Your task to perform on an android device: Go to calendar. Show me events next week Image 0: 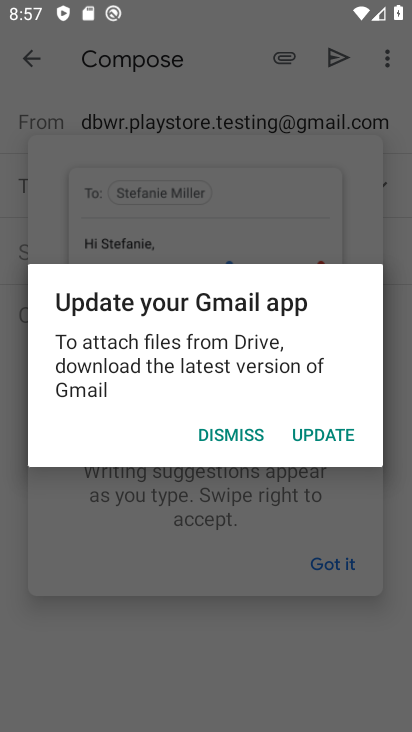
Step 0: press home button
Your task to perform on an android device: Go to calendar. Show me events next week Image 1: 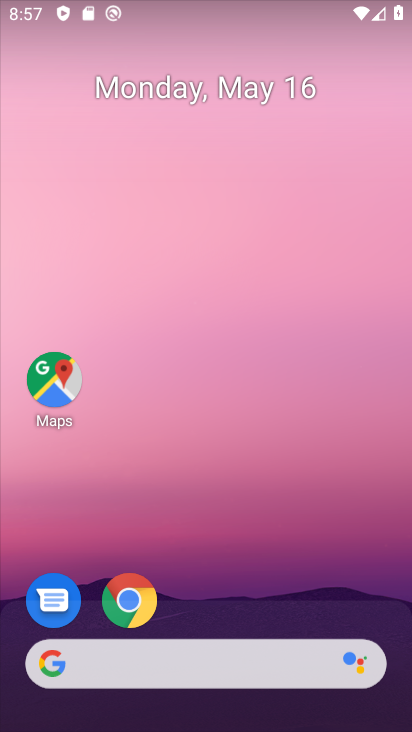
Step 1: drag from (198, 592) to (129, 138)
Your task to perform on an android device: Go to calendar. Show me events next week Image 2: 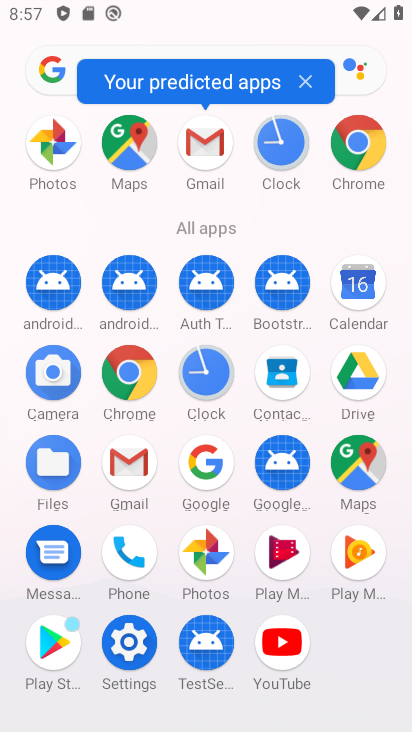
Step 2: click (362, 271)
Your task to perform on an android device: Go to calendar. Show me events next week Image 3: 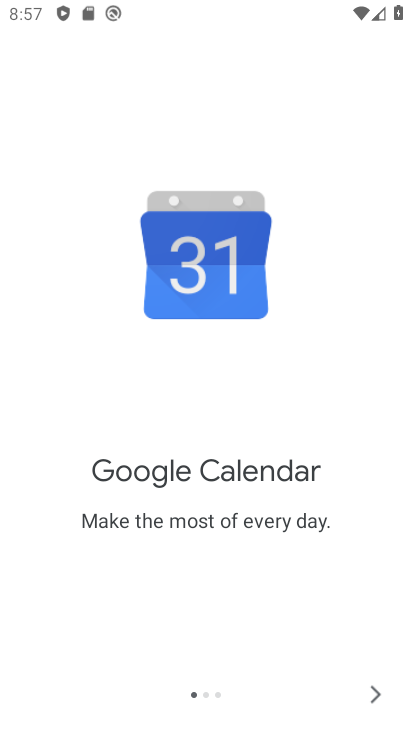
Step 3: click (365, 687)
Your task to perform on an android device: Go to calendar. Show me events next week Image 4: 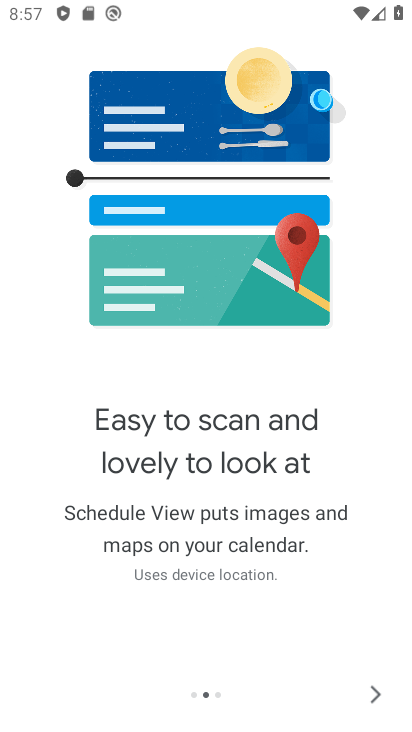
Step 4: click (381, 694)
Your task to perform on an android device: Go to calendar. Show me events next week Image 5: 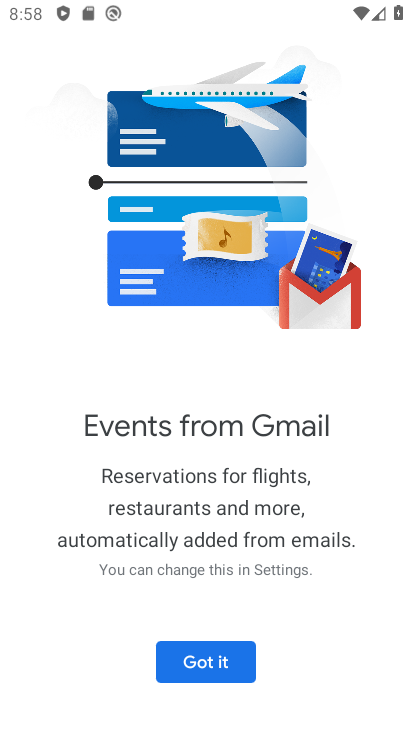
Step 5: click (206, 662)
Your task to perform on an android device: Go to calendar. Show me events next week Image 6: 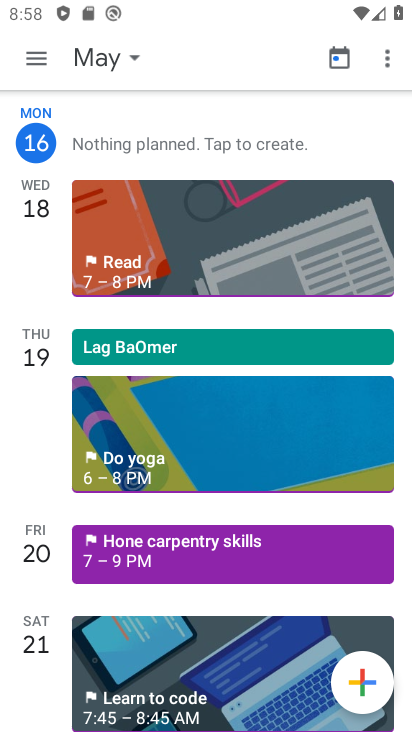
Step 6: click (91, 62)
Your task to perform on an android device: Go to calendar. Show me events next week Image 7: 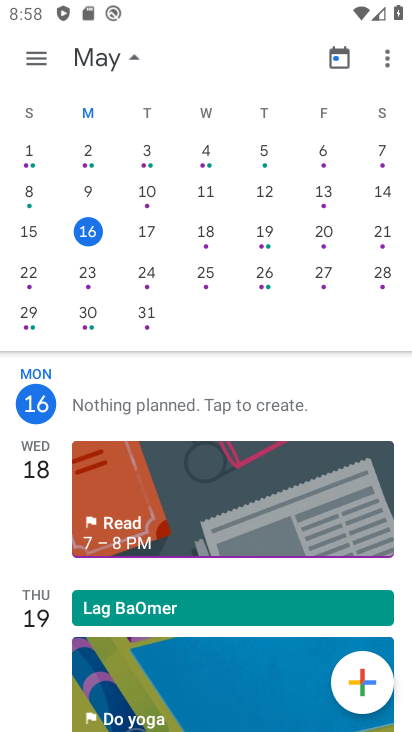
Step 7: click (28, 278)
Your task to perform on an android device: Go to calendar. Show me events next week Image 8: 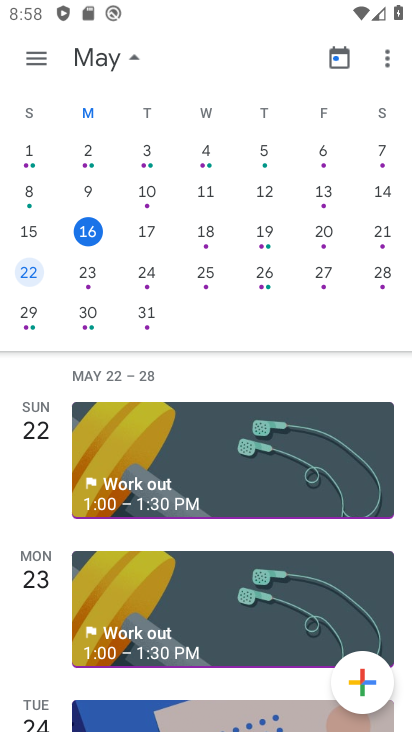
Step 8: task complete